Your task to perform on an android device: Clear all items from cart on walmart. Search for sony triple a on walmart, select the first entry, and add it to the cart. Image 0: 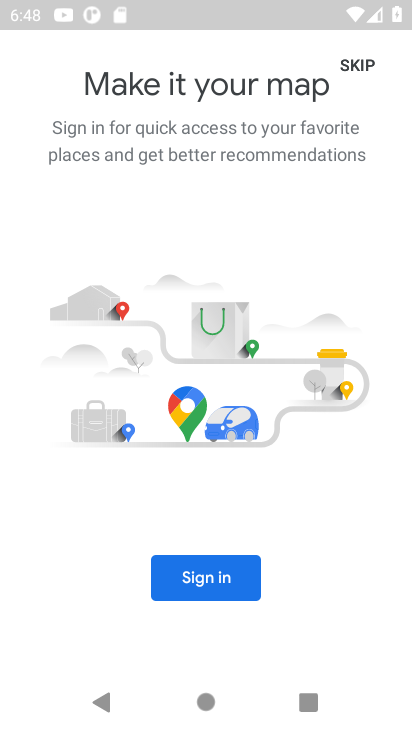
Step 0: press home button
Your task to perform on an android device: Clear all items from cart on walmart. Search for sony triple a on walmart, select the first entry, and add it to the cart. Image 1: 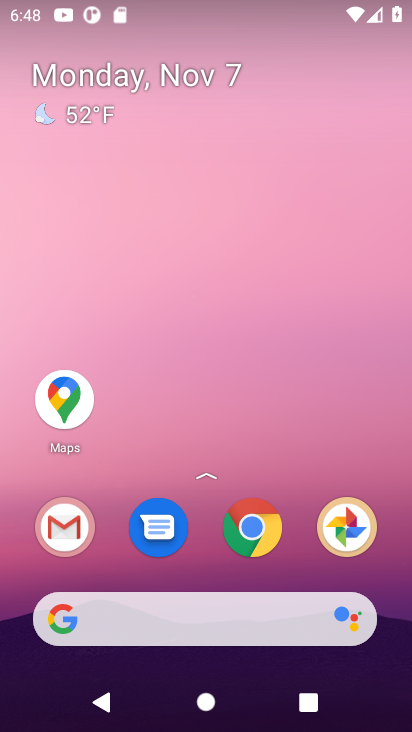
Step 1: click (262, 529)
Your task to perform on an android device: Clear all items from cart on walmart. Search for sony triple a on walmart, select the first entry, and add it to the cart. Image 2: 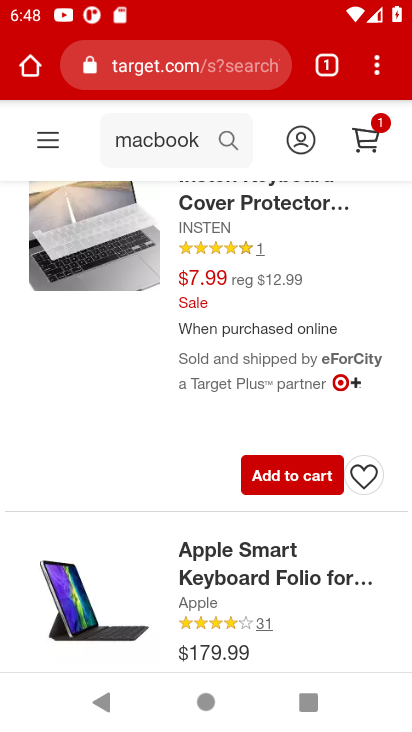
Step 2: click (262, 529)
Your task to perform on an android device: Clear all items from cart on walmart. Search for sony triple a on walmart, select the first entry, and add it to the cart. Image 3: 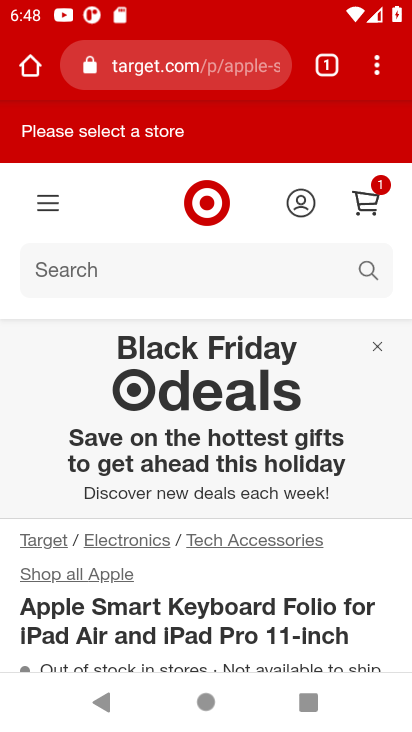
Step 3: click (193, 61)
Your task to perform on an android device: Clear all items from cart on walmart. Search for sony triple a on walmart, select the first entry, and add it to the cart. Image 4: 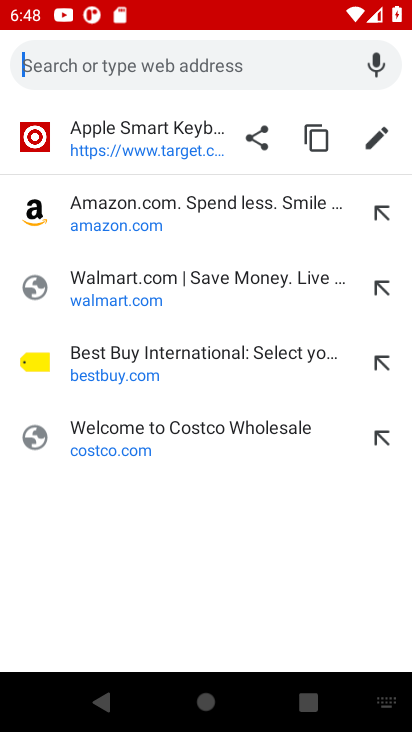
Step 4: type "walmart"
Your task to perform on an android device: Clear all items from cart on walmart. Search for sony triple a on walmart, select the first entry, and add it to the cart. Image 5: 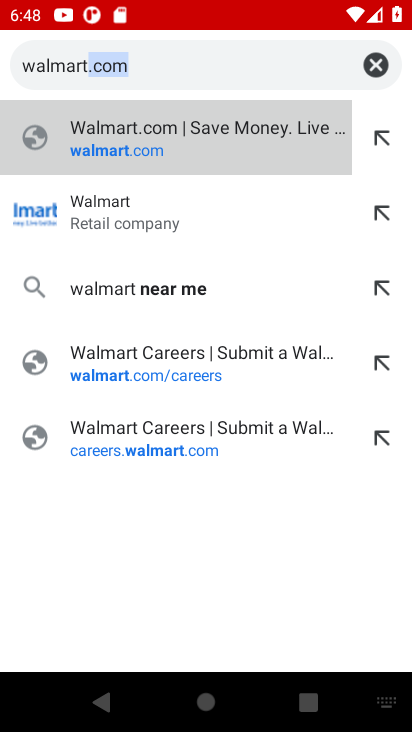
Step 5: click (266, 151)
Your task to perform on an android device: Clear all items from cart on walmart. Search for sony triple a on walmart, select the first entry, and add it to the cart. Image 6: 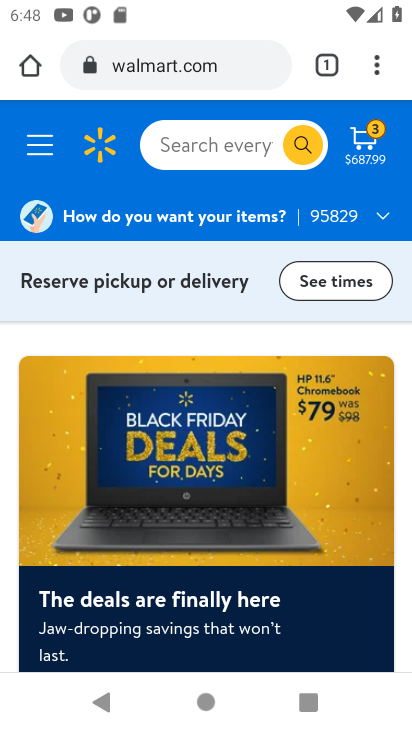
Step 6: click (207, 158)
Your task to perform on an android device: Clear all items from cart on walmart. Search for sony triple a on walmart, select the first entry, and add it to the cart. Image 7: 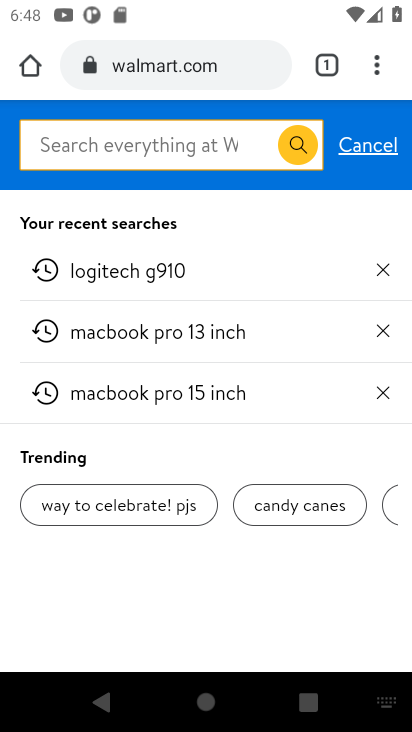
Step 7: type "sony aaa"
Your task to perform on an android device: Clear all items from cart on walmart. Search for sony triple a on walmart, select the first entry, and add it to the cart. Image 8: 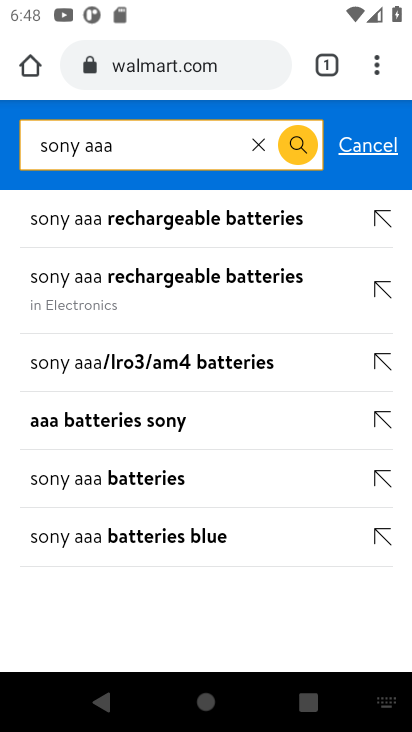
Step 8: press enter
Your task to perform on an android device: Clear all items from cart on walmart. Search for sony triple a on walmart, select the first entry, and add it to the cart. Image 9: 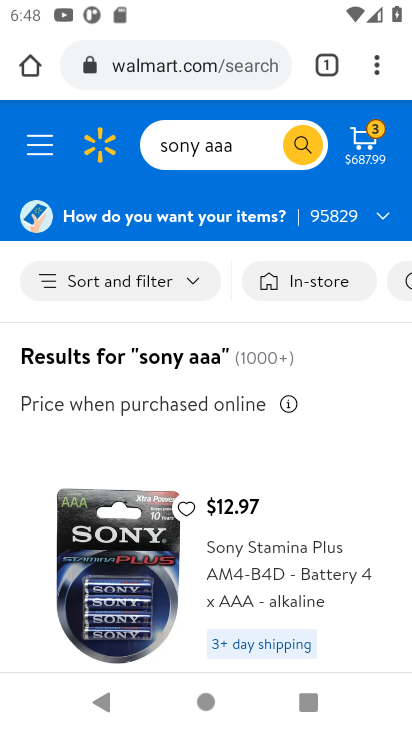
Step 9: drag from (198, 566) to (135, 318)
Your task to perform on an android device: Clear all items from cart on walmart. Search for sony triple a on walmart, select the first entry, and add it to the cart. Image 10: 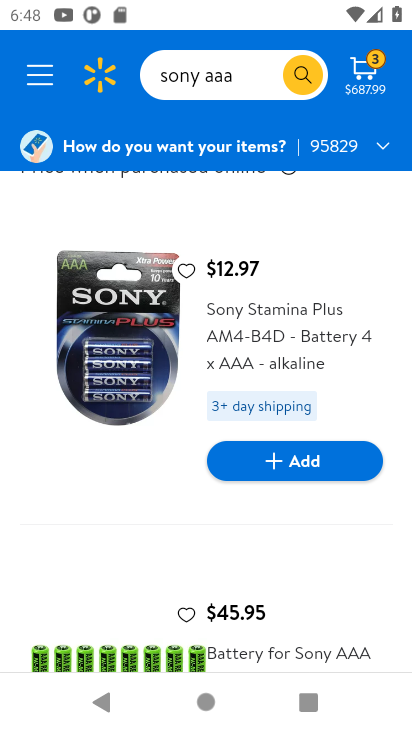
Step 10: click (271, 462)
Your task to perform on an android device: Clear all items from cart on walmart. Search for sony triple a on walmart, select the first entry, and add it to the cart. Image 11: 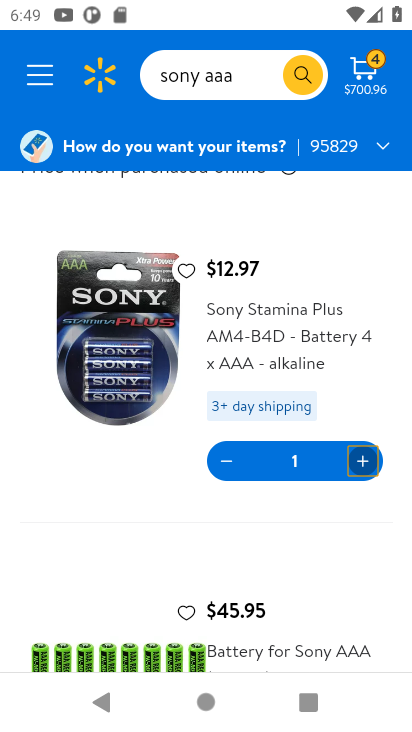
Step 11: task complete